Your task to perform on an android device: Go to display settings Image 0: 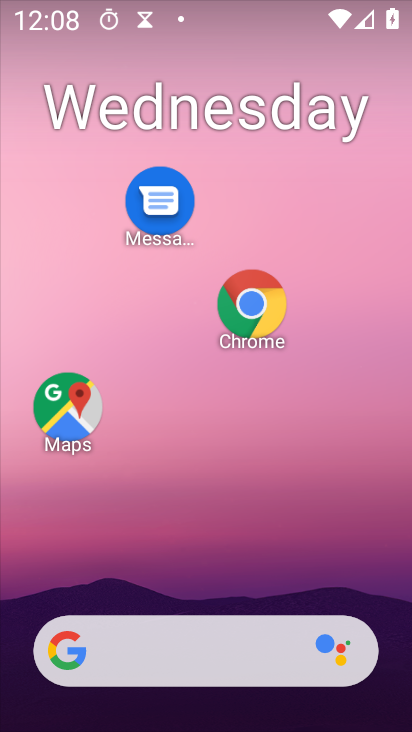
Step 0: drag from (272, 523) to (291, 170)
Your task to perform on an android device: Go to display settings Image 1: 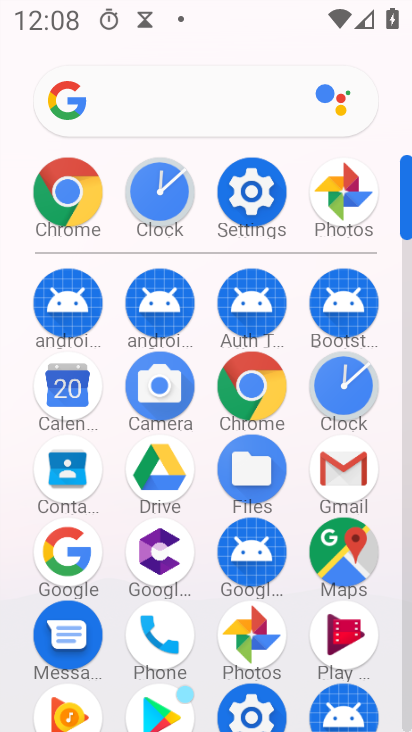
Step 1: click (254, 177)
Your task to perform on an android device: Go to display settings Image 2: 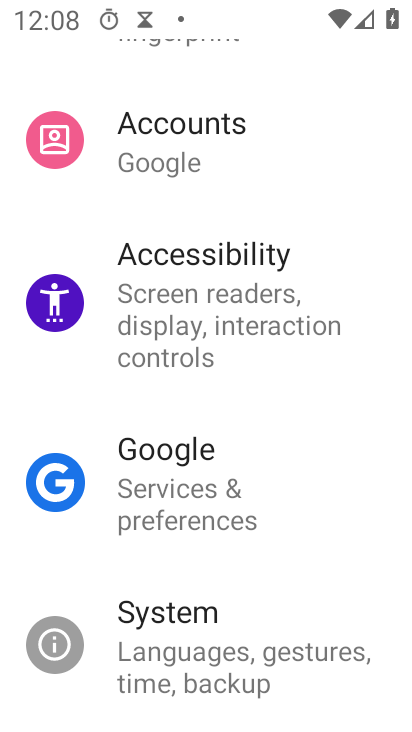
Step 2: drag from (255, 121) to (220, 562)
Your task to perform on an android device: Go to display settings Image 3: 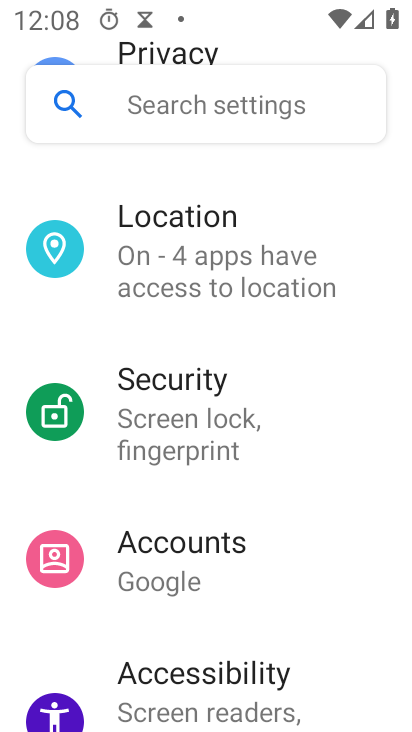
Step 3: drag from (244, 202) to (185, 617)
Your task to perform on an android device: Go to display settings Image 4: 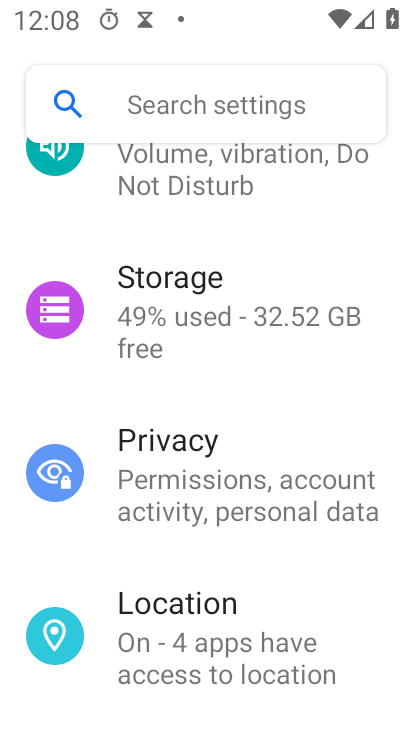
Step 4: drag from (235, 251) to (240, 642)
Your task to perform on an android device: Go to display settings Image 5: 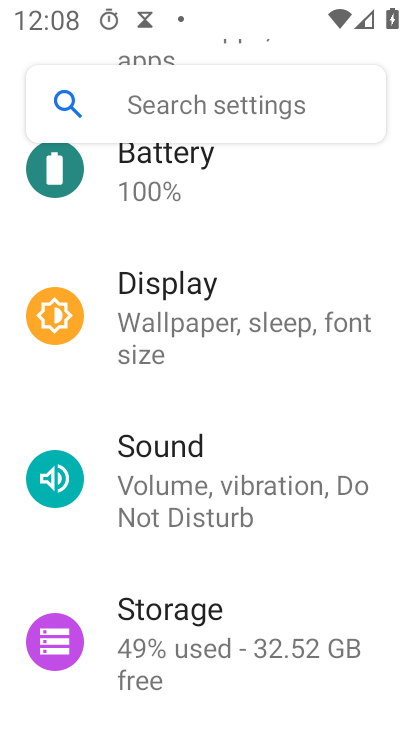
Step 5: click (207, 291)
Your task to perform on an android device: Go to display settings Image 6: 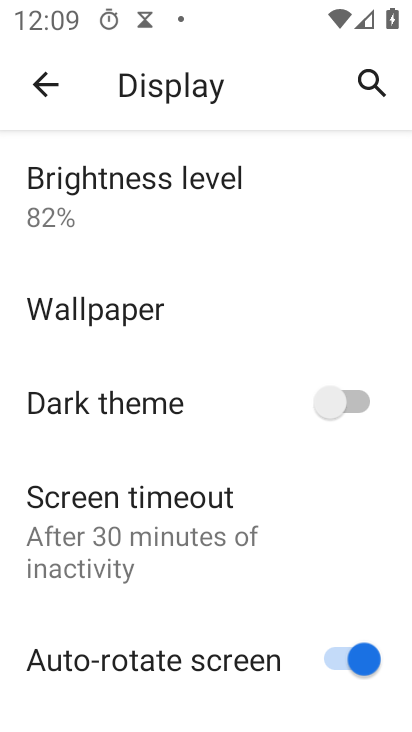
Step 6: task complete